Your task to perform on an android device: Open notification settings Image 0: 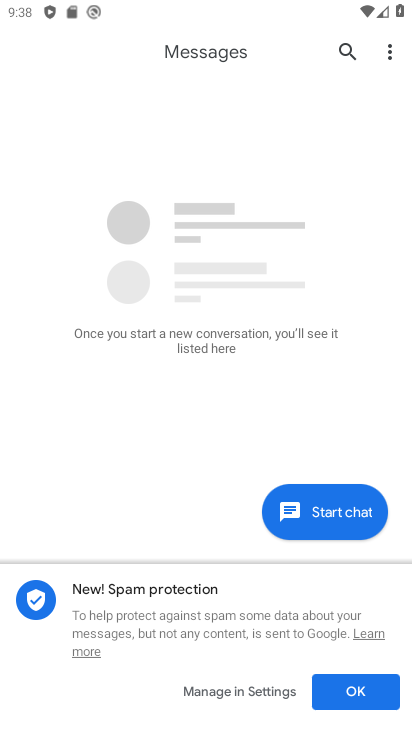
Step 0: press home button
Your task to perform on an android device: Open notification settings Image 1: 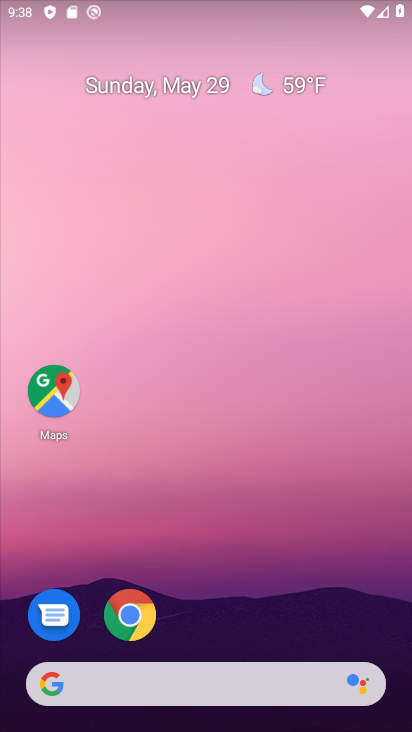
Step 1: drag from (214, 640) to (219, 120)
Your task to perform on an android device: Open notification settings Image 2: 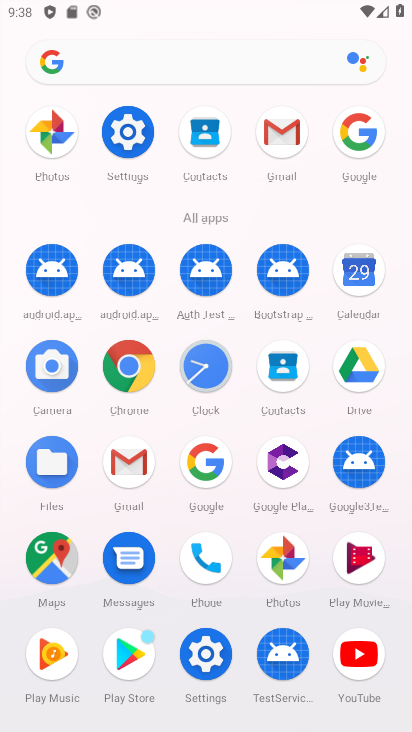
Step 2: click (127, 133)
Your task to perform on an android device: Open notification settings Image 3: 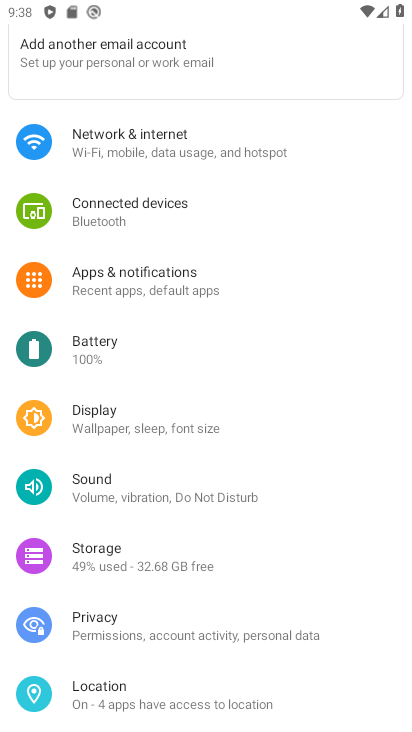
Step 3: click (142, 301)
Your task to perform on an android device: Open notification settings Image 4: 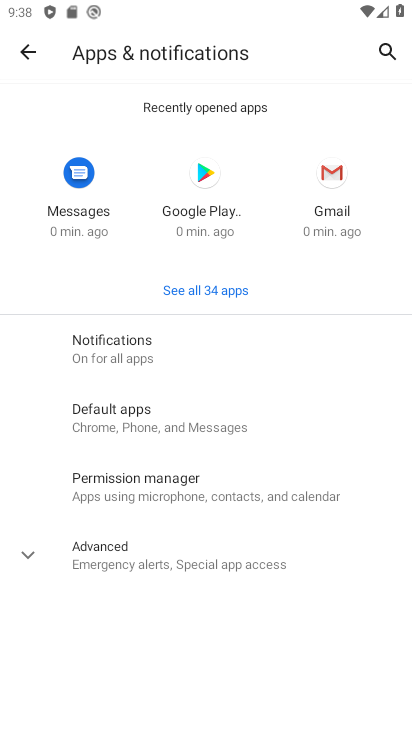
Step 4: click (133, 364)
Your task to perform on an android device: Open notification settings Image 5: 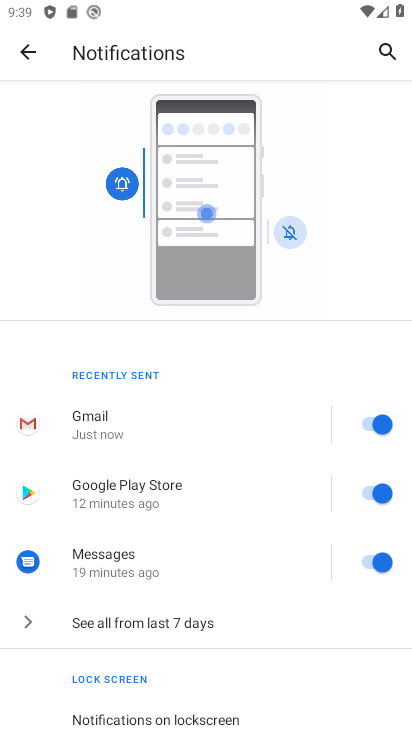
Step 5: task complete